Your task to perform on an android device: change alarm snooze length Image 0: 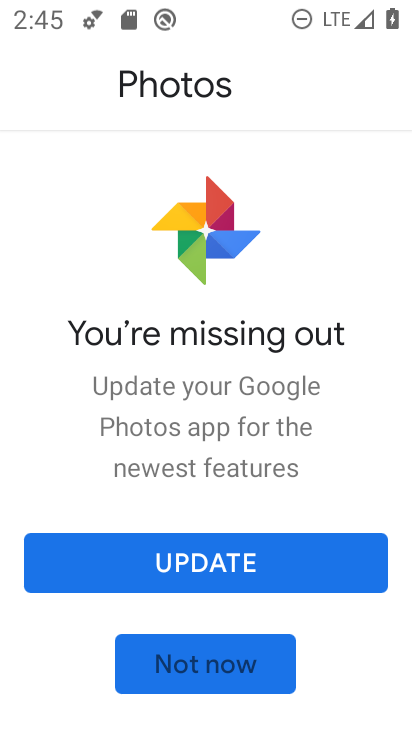
Step 0: click (261, 676)
Your task to perform on an android device: change alarm snooze length Image 1: 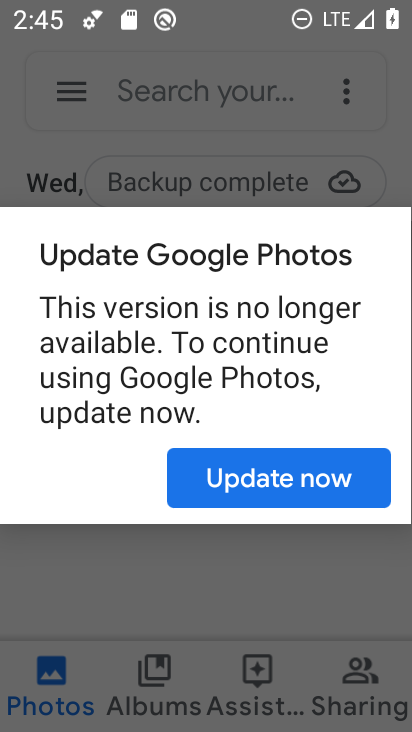
Step 1: click (306, 493)
Your task to perform on an android device: change alarm snooze length Image 2: 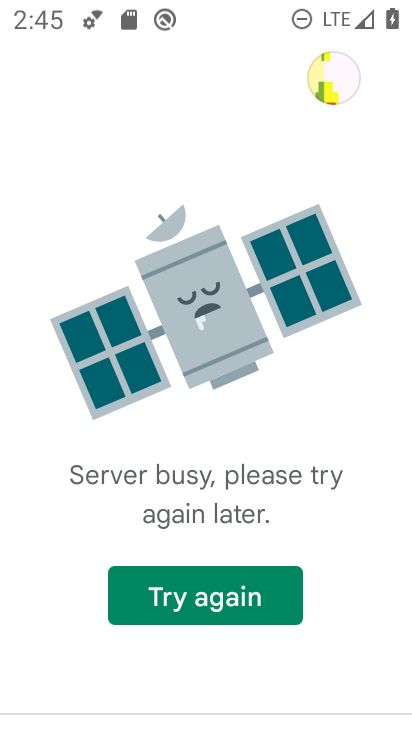
Step 2: click (237, 590)
Your task to perform on an android device: change alarm snooze length Image 3: 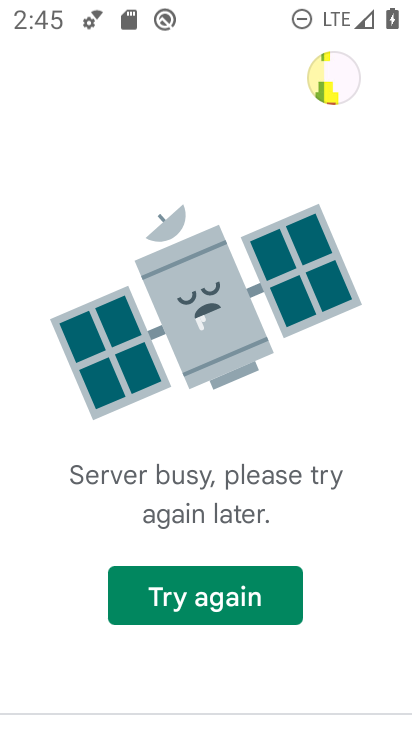
Step 3: click (237, 590)
Your task to perform on an android device: change alarm snooze length Image 4: 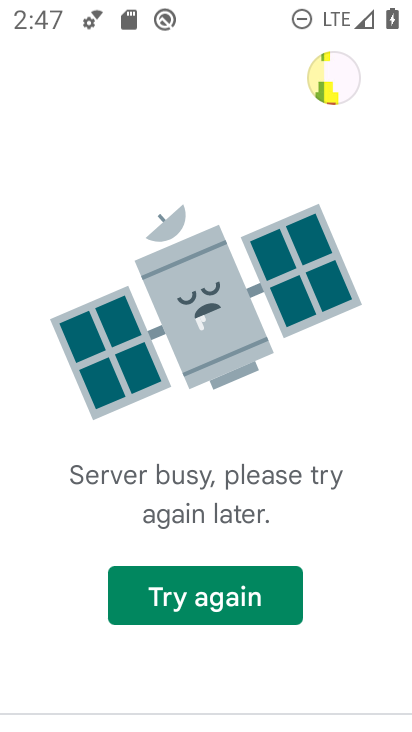
Step 4: press home button
Your task to perform on an android device: change alarm snooze length Image 5: 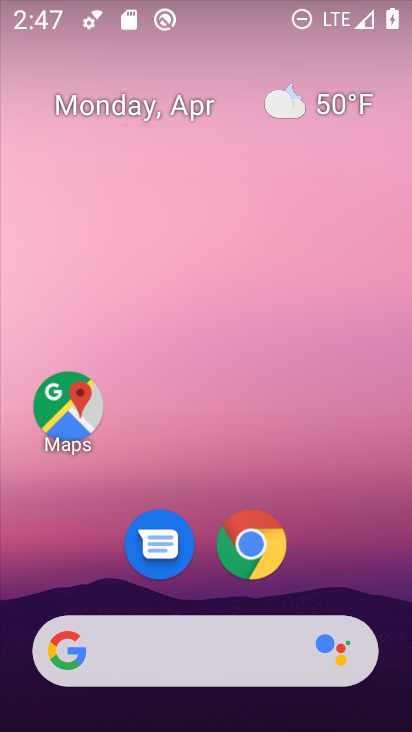
Step 5: drag from (365, 514) to (257, 10)
Your task to perform on an android device: change alarm snooze length Image 6: 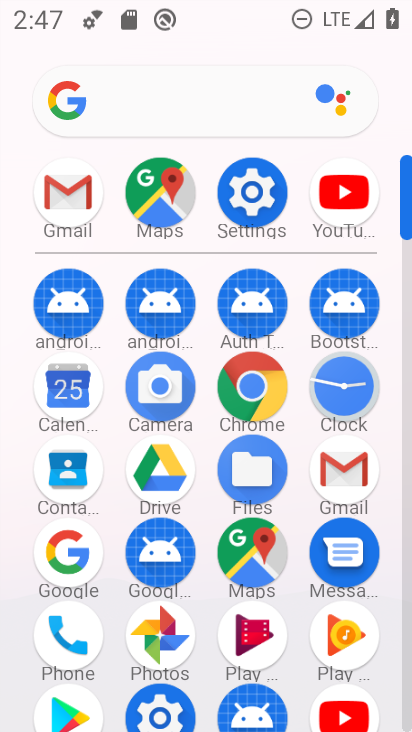
Step 6: click (341, 390)
Your task to perform on an android device: change alarm snooze length Image 7: 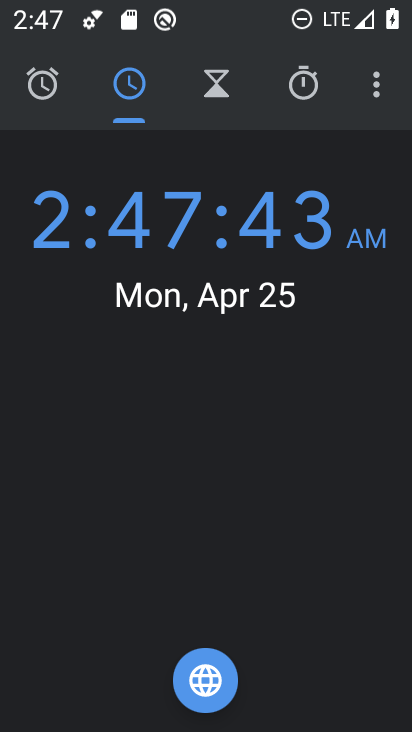
Step 7: click (376, 84)
Your task to perform on an android device: change alarm snooze length Image 8: 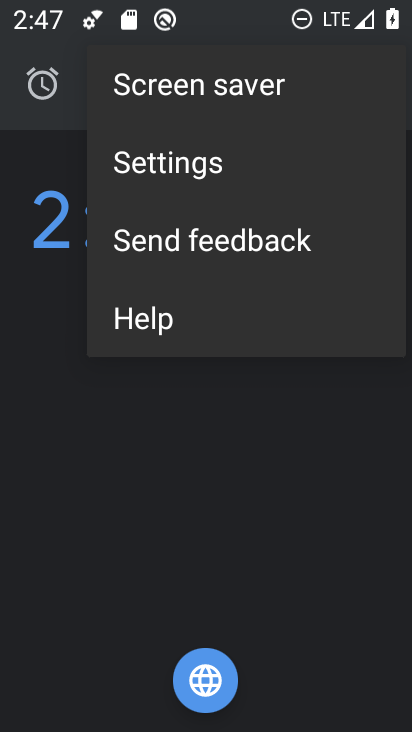
Step 8: click (230, 165)
Your task to perform on an android device: change alarm snooze length Image 9: 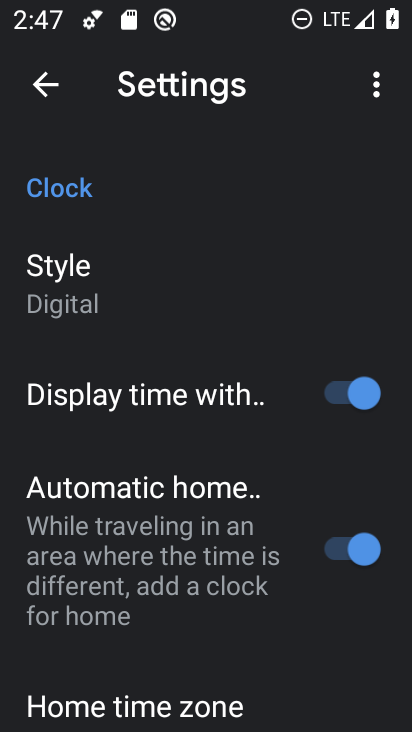
Step 9: drag from (255, 648) to (221, 71)
Your task to perform on an android device: change alarm snooze length Image 10: 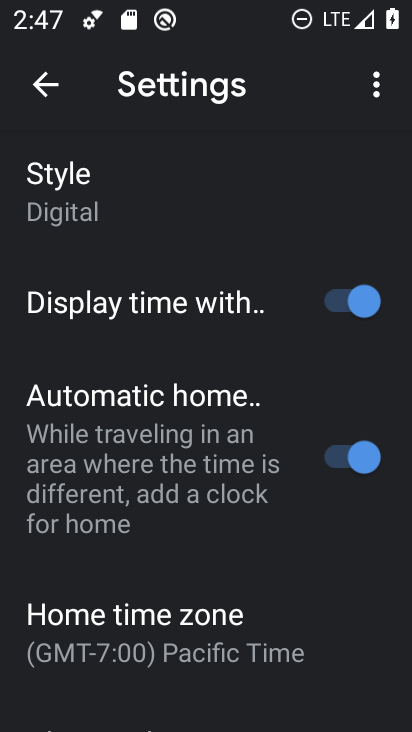
Step 10: drag from (201, 598) to (150, 55)
Your task to perform on an android device: change alarm snooze length Image 11: 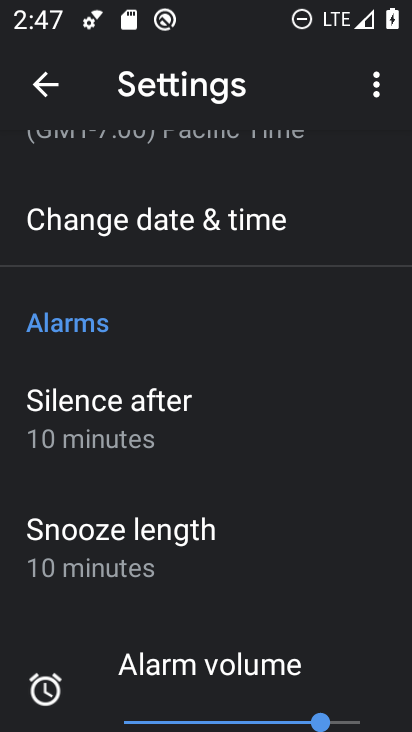
Step 11: click (181, 557)
Your task to perform on an android device: change alarm snooze length Image 12: 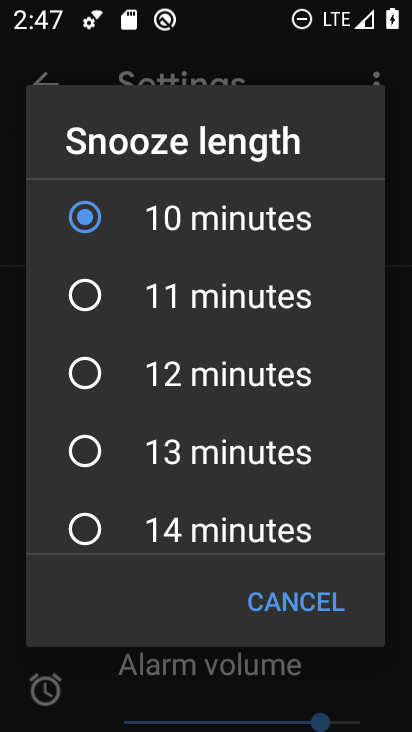
Step 12: click (199, 387)
Your task to perform on an android device: change alarm snooze length Image 13: 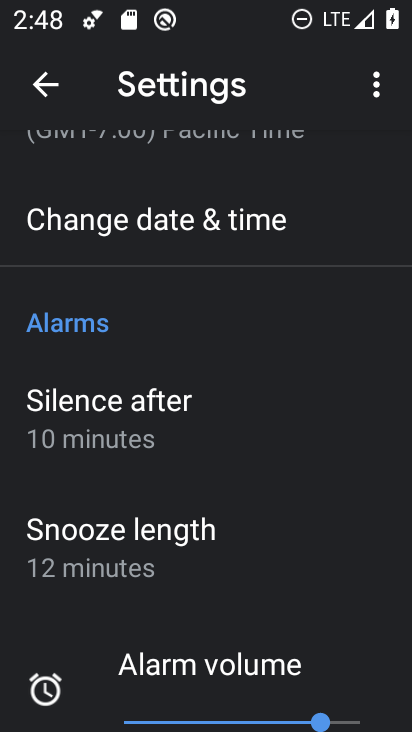
Step 13: task complete